Your task to perform on an android device: Open Chrome and go to the settings page Image 0: 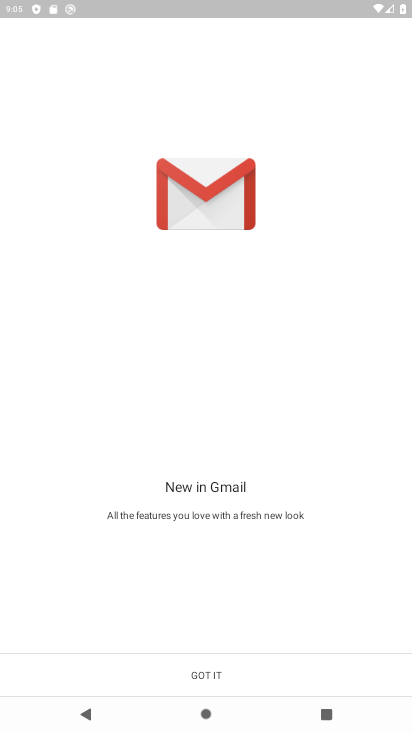
Step 0: press home button
Your task to perform on an android device: Open Chrome and go to the settings page Image 1: 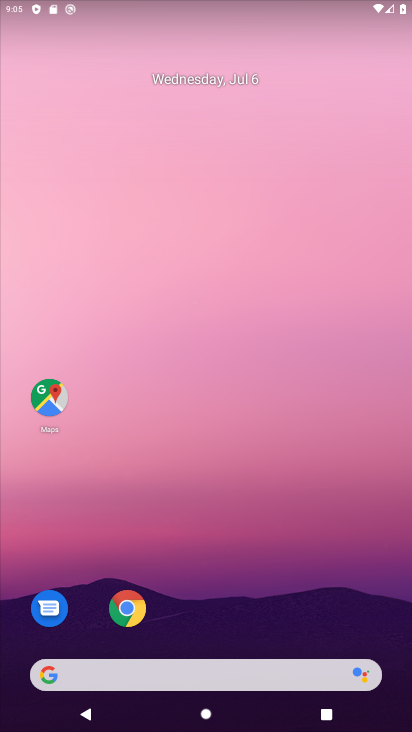
Step 1: click (131, 609)
Your task to perform on an android device: Open Chrome and go to the settings page Image 2: 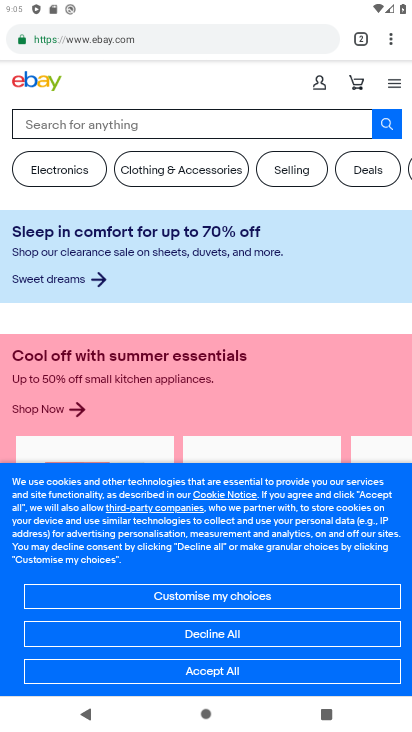
Step 2: click (392, 39)
Your task to perform on an android device: Open Chrome and go to the settings page Image 3: 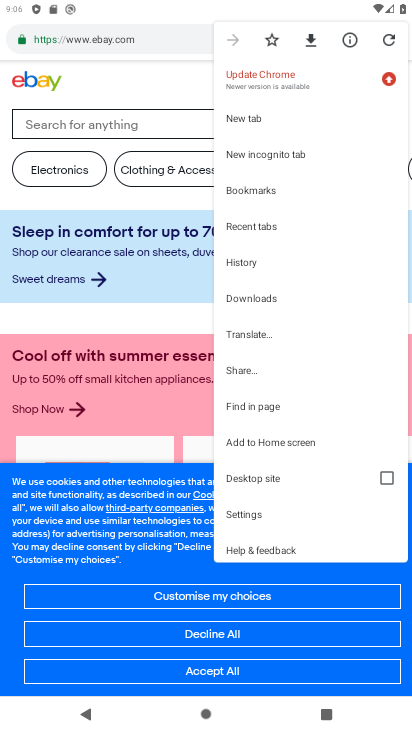
Step 3: click (247, 512)
Your task to perform on an android device: Open Chrome and go to the settings page Image 4: 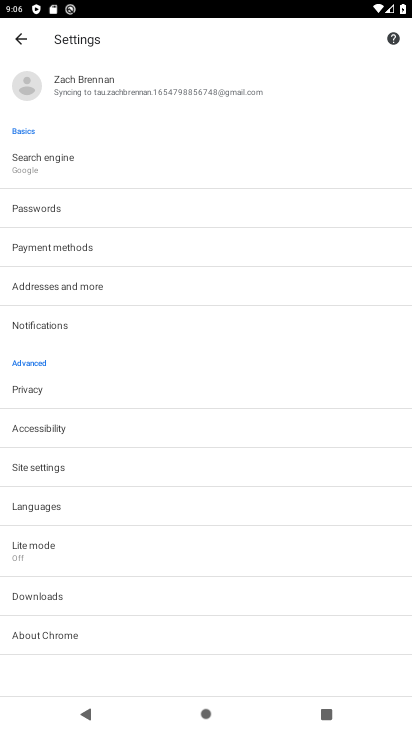
Step 4: task complete